Your task to perform on an android device: Go to Google maps Image 0: 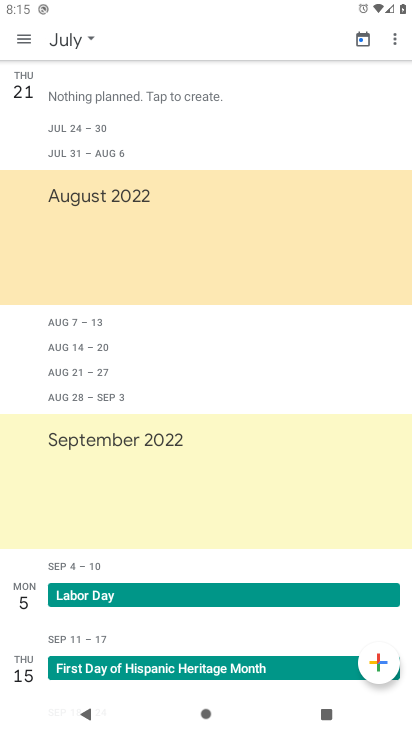
Step 0: press home button
Your task to perform on an android device: Go to Google maps Image 1: 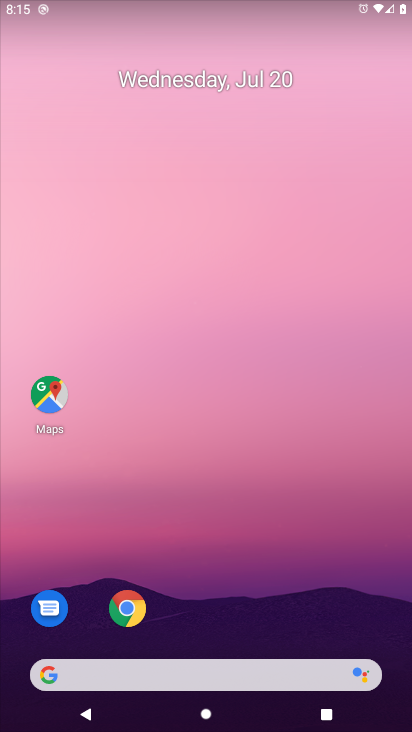
Step 1: click (47, 399)
Your task to perform on an android device: Go to Google maps Image 2: 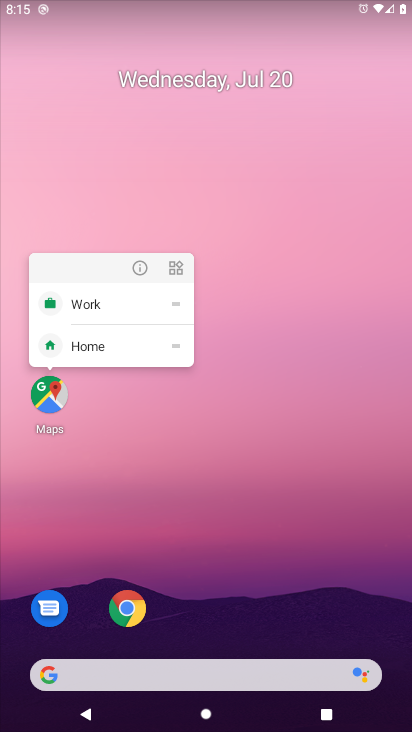
Step 2: click (45, 407)
Your task to perform on an android device: Go to Google maps Image 3: 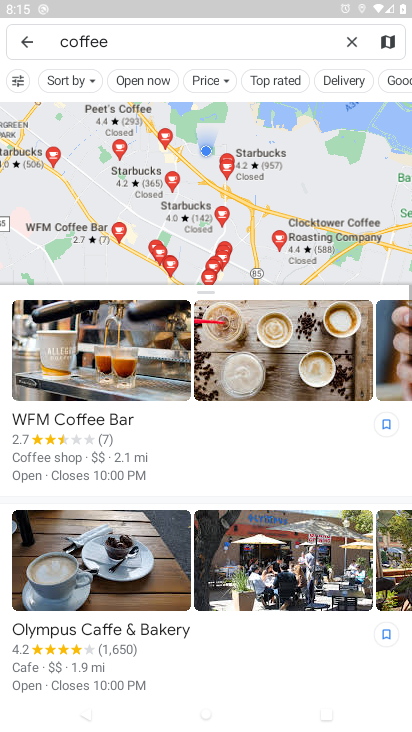
Step 3: click (30, 31)
Your task to perform on an android device: Go to Google maps Image 4: 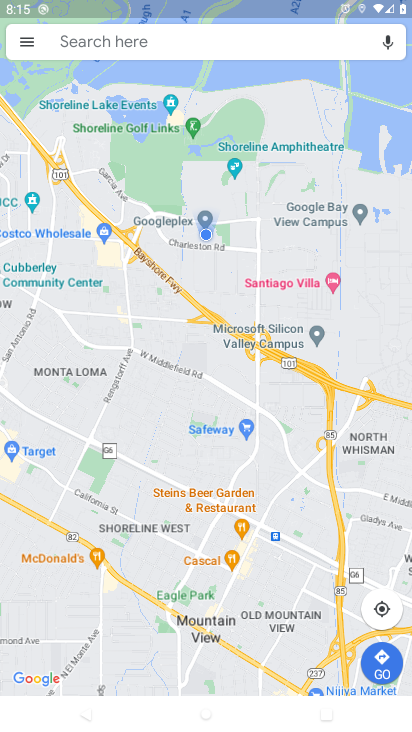
Step 4: task complete